Your task to perform on an android device: delete the emails in spam in the gmail app Image 0: 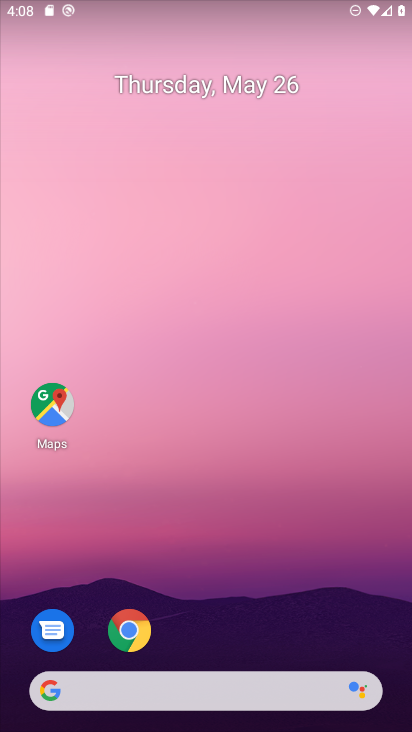
Step 0: drag from (220, 582) to (193, 89)
Your task to perform on an android device: delete the emails in spam in the gmail app Image 1: 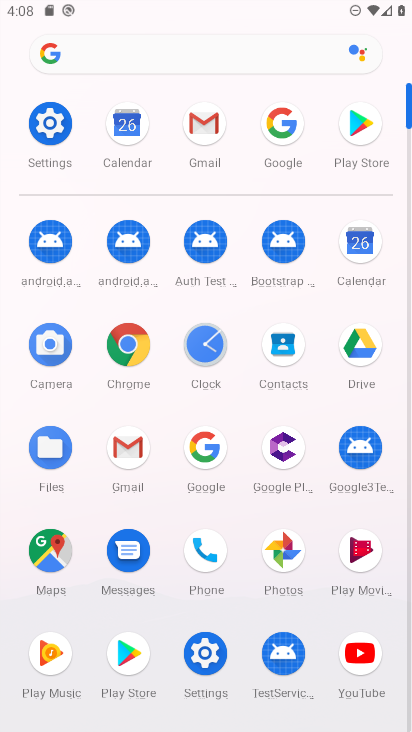
Step 1: click (203, 121)
Your task to perform on an android device: delete the emails in spam in the gmail app Image 2: 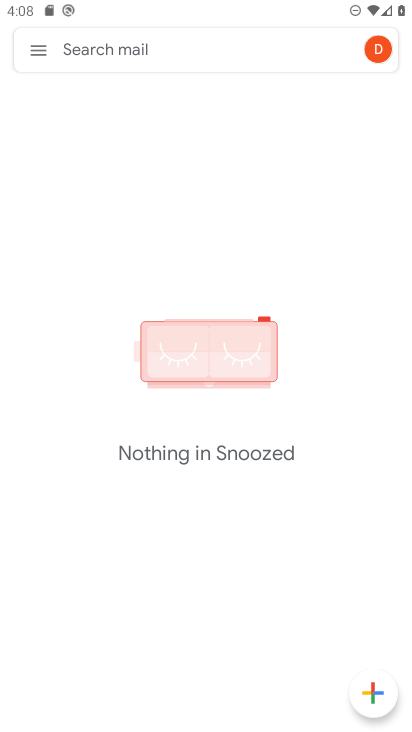
Step 2: click (49, 47)
Your task to perform on an android device: delete the emails in spam in the gmail app Image 3: 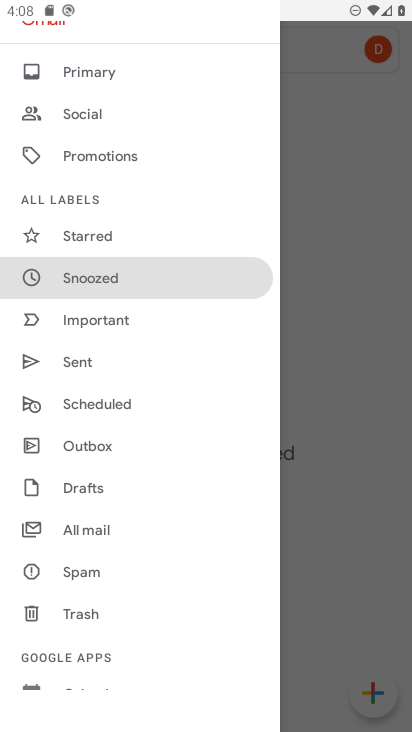
Step 3: click (62, 580)
Your task to perform on an android device: delete the emails in spam in the gmail app Image 4: 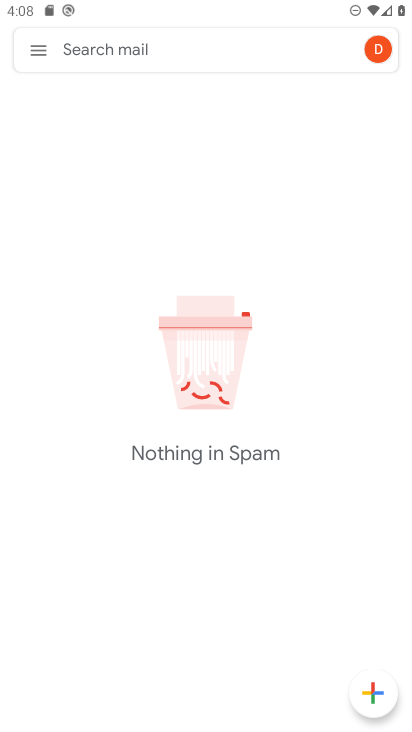
Step 4: task complete